Your task to perform on an android device: Open wifi settings Image 0: 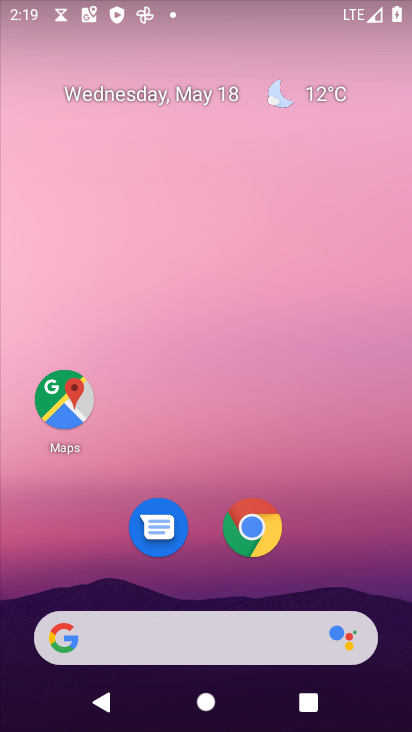
Step 0: drag from (311, 492) to (212, 54)
Your task to perform on an android device: Open wifi settings Image 1: 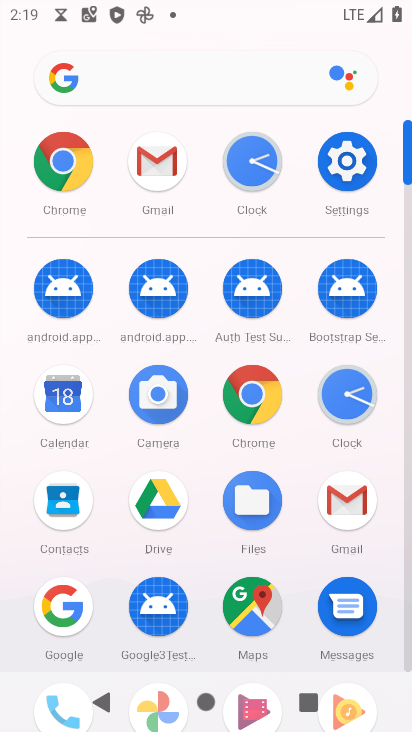
Step 1: click (359, 149)
Your task to perform on an android device: Open wifi settings Image 2: 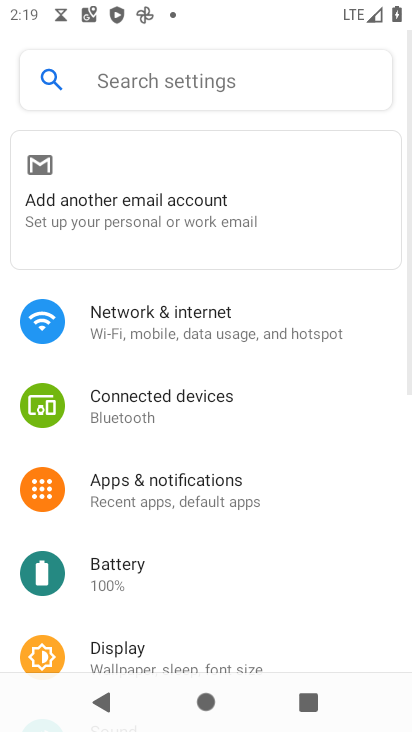
Step 2: click (209, 319)
Your task to perform on an android device: Open wifi settings Image 3: 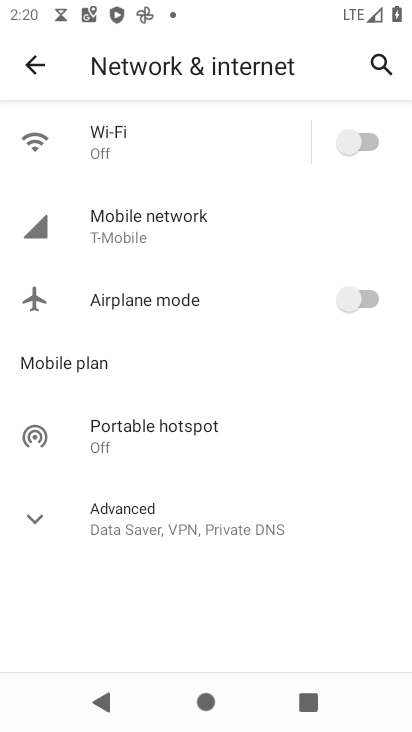
Step 3: click (168, 154)
Your task to perform on an android device: Open wifi settings Image 4: 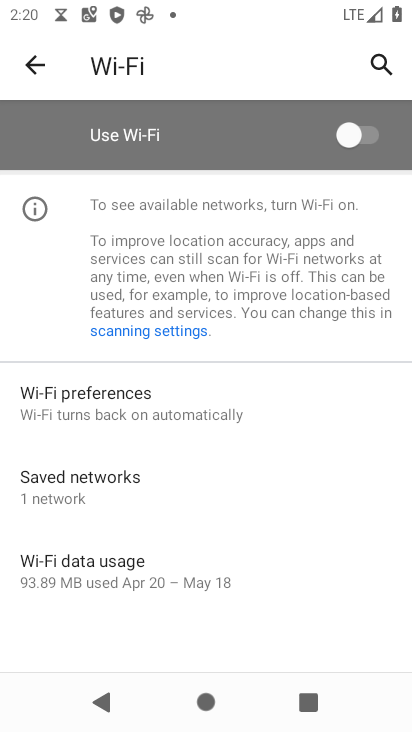
Step 4: task complete